Your task to perform on an android device: Do I have any events today? Image 0: 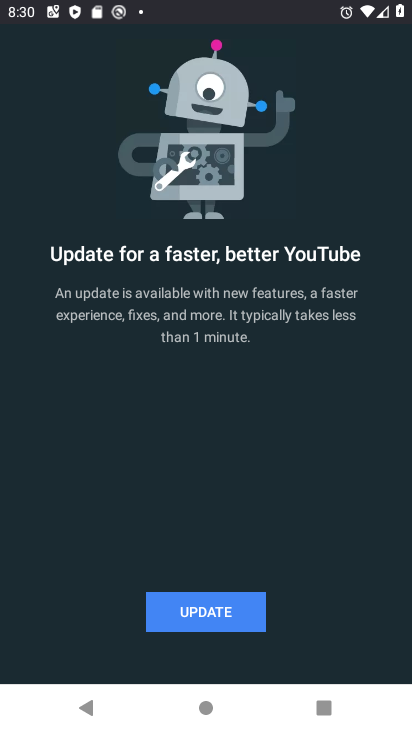
Step 0: press home button
Your task to perform on an android device: Do I have any events today? Image 1: 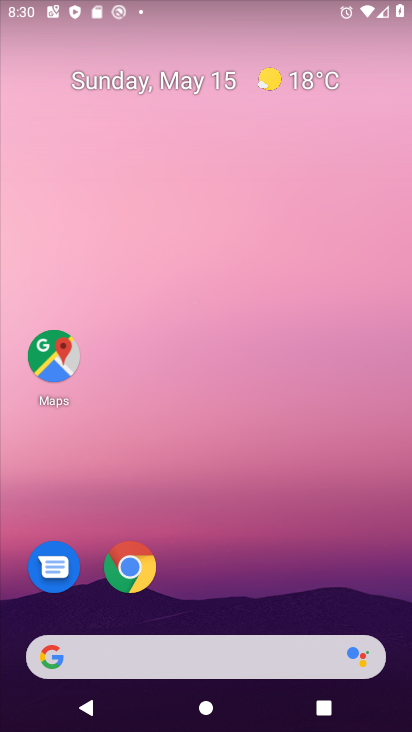
Step 1: drag from (247, 715) to (151, 1)
Your task to perform on an android device: Do I have any events today? Image 2: 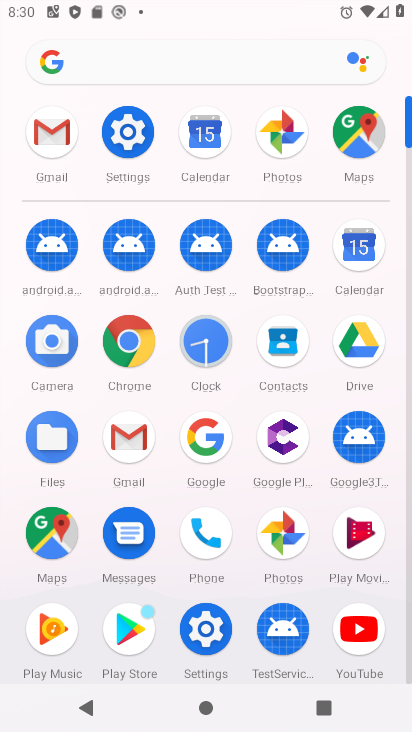
Step 2: click (356, 269)
Your task to perform on an android device: Do I have any events today? Image 3: 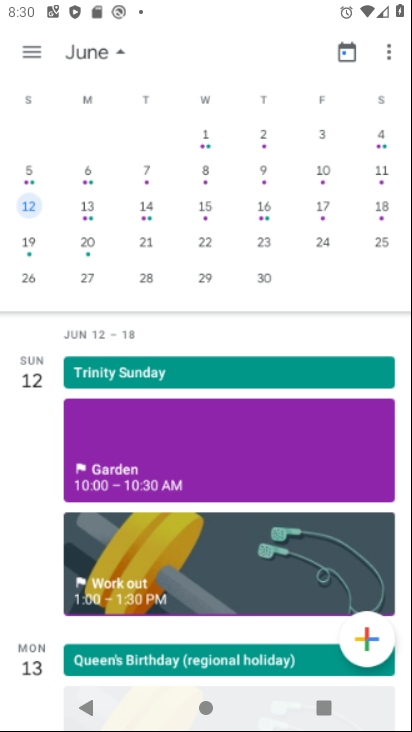
Step 3: click (30, 53)
Your task to perform on an android device: Do I have any events today? Image 4: 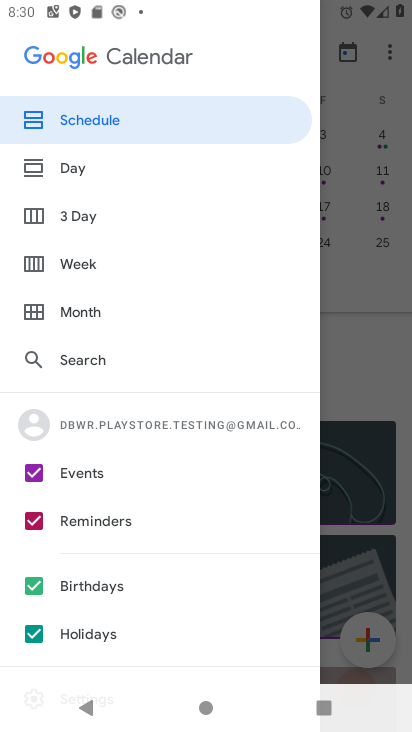
Step 4: click (136, 127)
Your task to perform on an android device: Do I have any events today? Image 5: 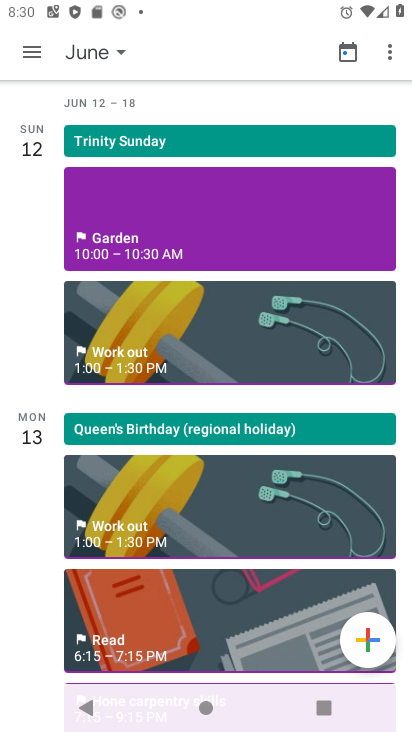
Step 5: task complete